Your task to perform on an android device: Go to calendar. Show me events next week Image 0: 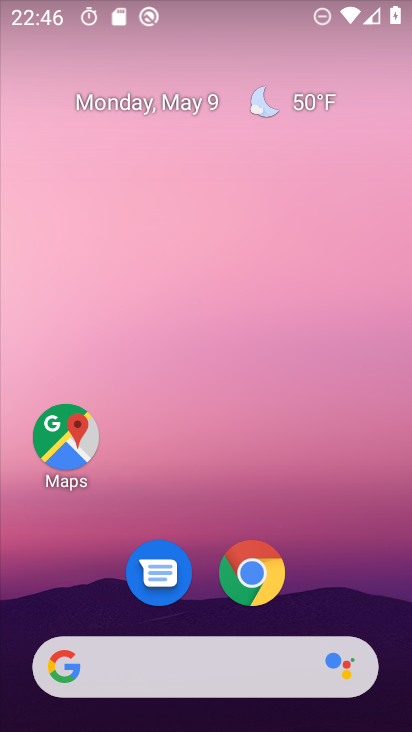
Step 0: drag from (366, 519) to (213, 78)
Your task to perform on an android device: Go to calendar. Show me events next week Image 1: 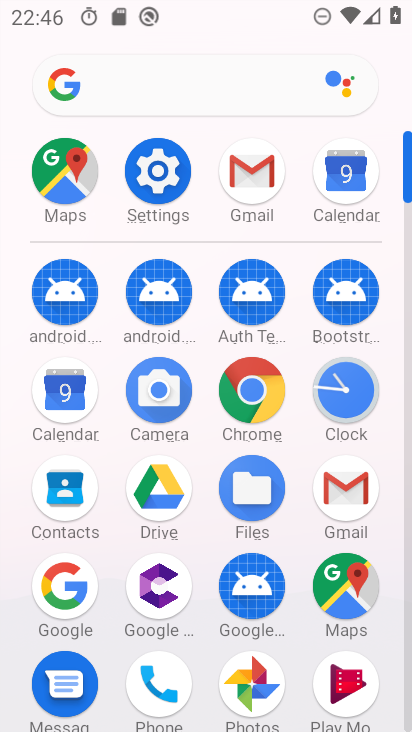
Step 1: click (50, 391)
Your task to perform on an android device: Go to calendar. Show me events next week Image 2: 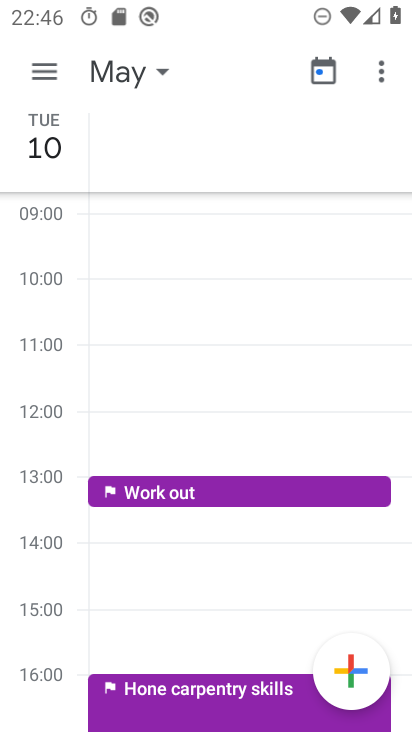
Step 2: click (118, 64)
Your task to perform on an android device: Go to calendar. Show me events next week Image 3: 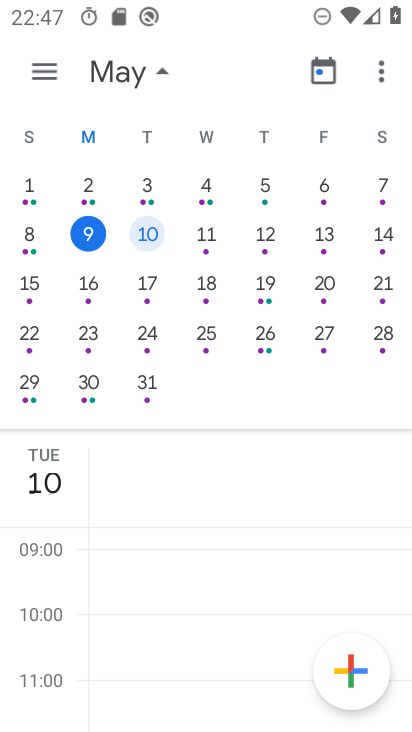
Step 3: click (85, 284)
Your task to perform on an android device: Go to calendar. Show me events next week Image 4: 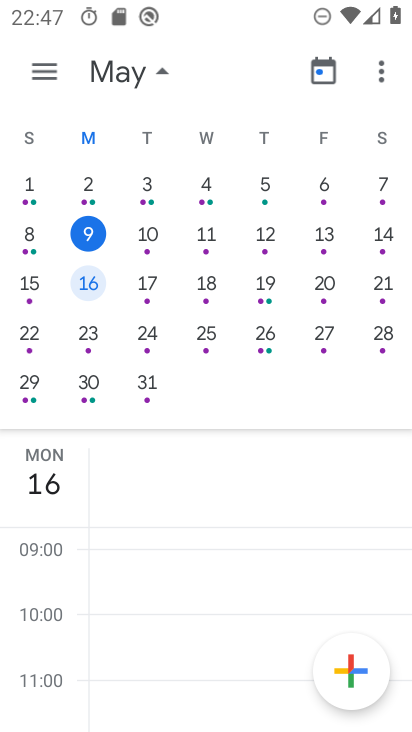
Step 4: task complete